Your task to perform on an android device: see sites visited before in the chrome app Image 0: 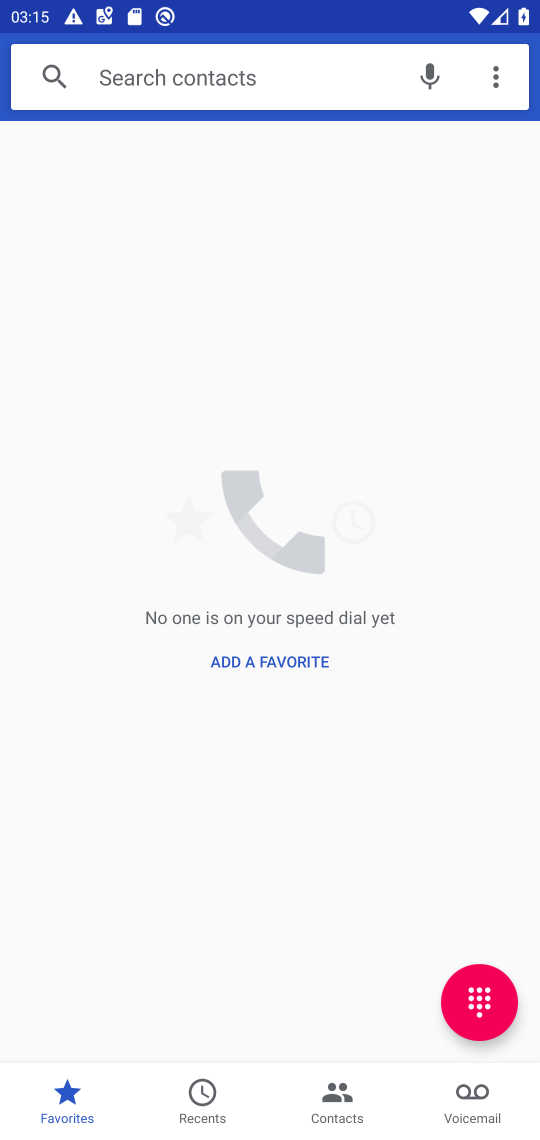
Step 0: press home button
Your task to perform on an android device: see sites visited before in the chrome app Image 1: 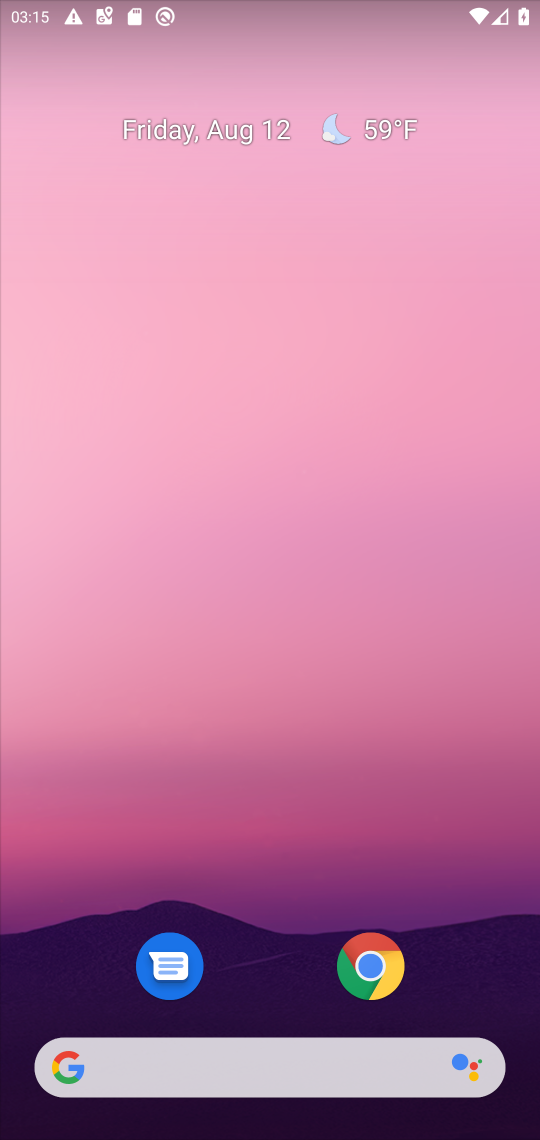
Step 1: drag from (349, 816) to (382, 13)
Your task to perform on an android device: see sites visited before in the chrome app Image 2: 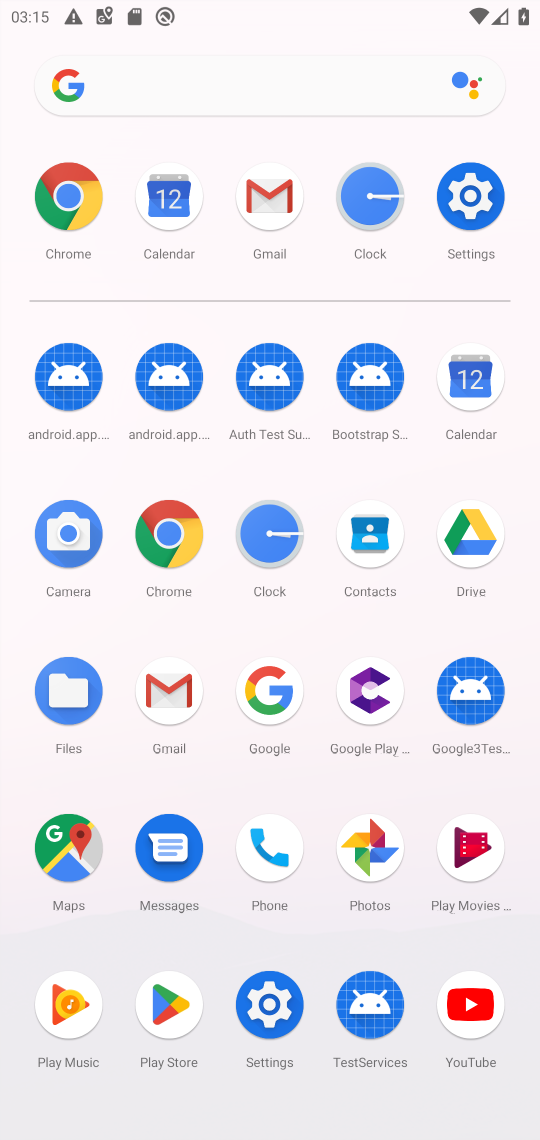
Step 2: click (173, 536)
Your task to perform on an android device: see sites visited before in the chrome app Image 3: 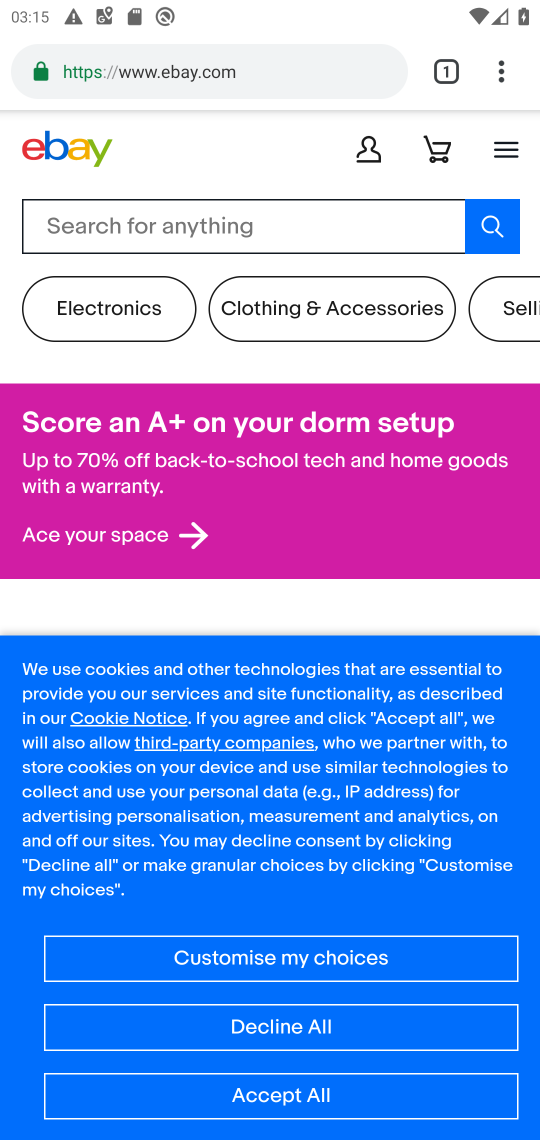
Step 3: task complete